Your task to perform on an android device: Clear the cart on ebay. Add razer kraken to the cart on ebay, then select checkout. Image 0: 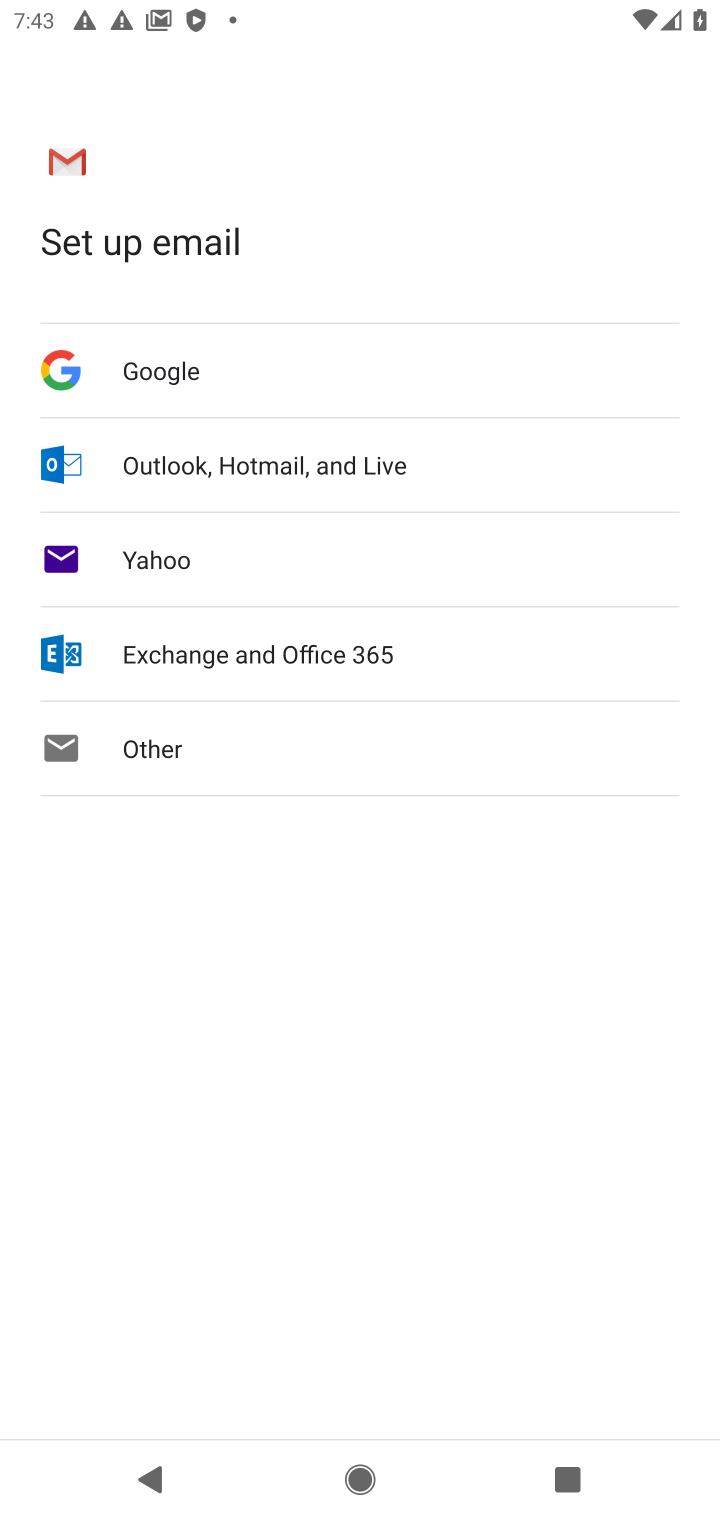
Step 0: press home button
Your task to perform on an android device: Clear the cart on ebay. Add razer kraken to the cart on ebay, then select checkout. Image 1: 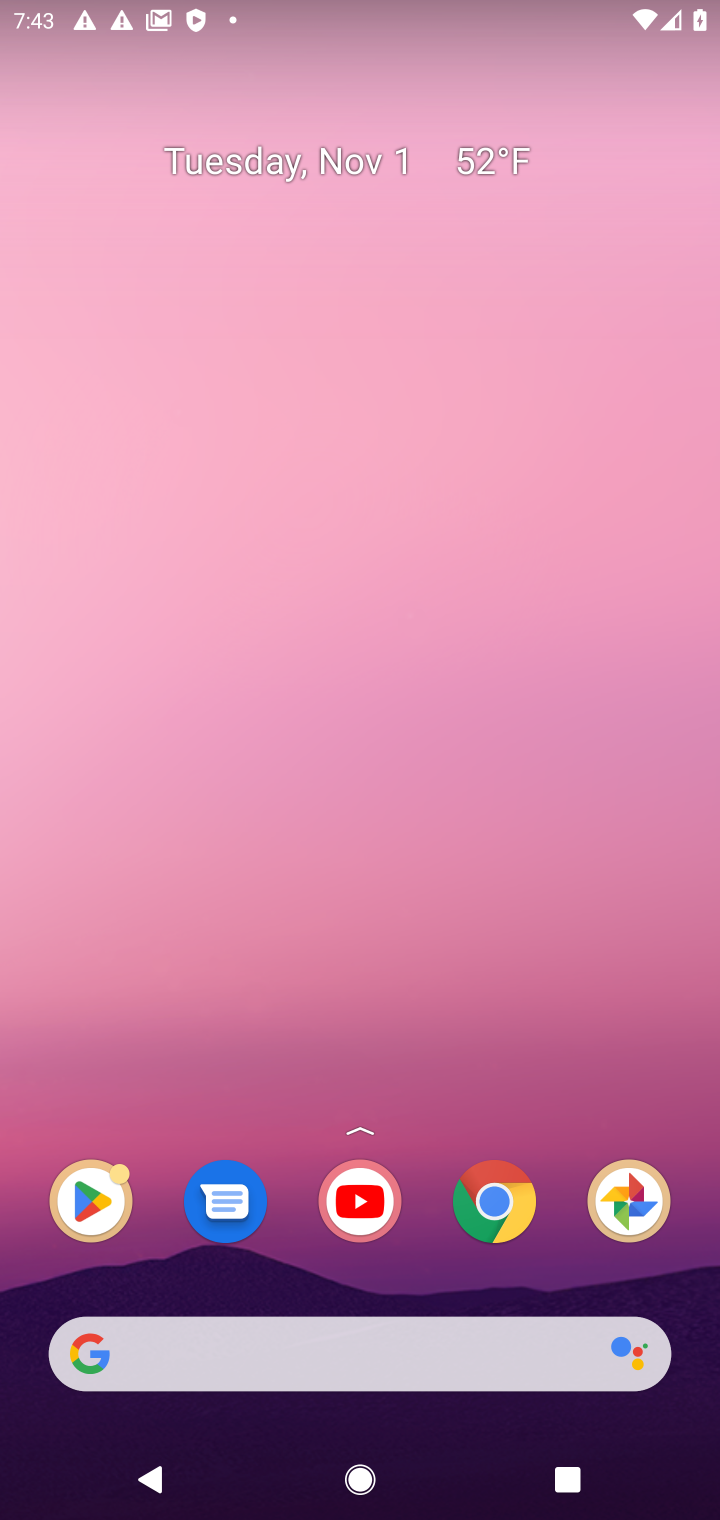
Step 1: click (325, 1347)
Your task to perform on an android device: Clear the cart on ebay. Add razer kraken to the cart on ebay, then select checkout. Image 2: 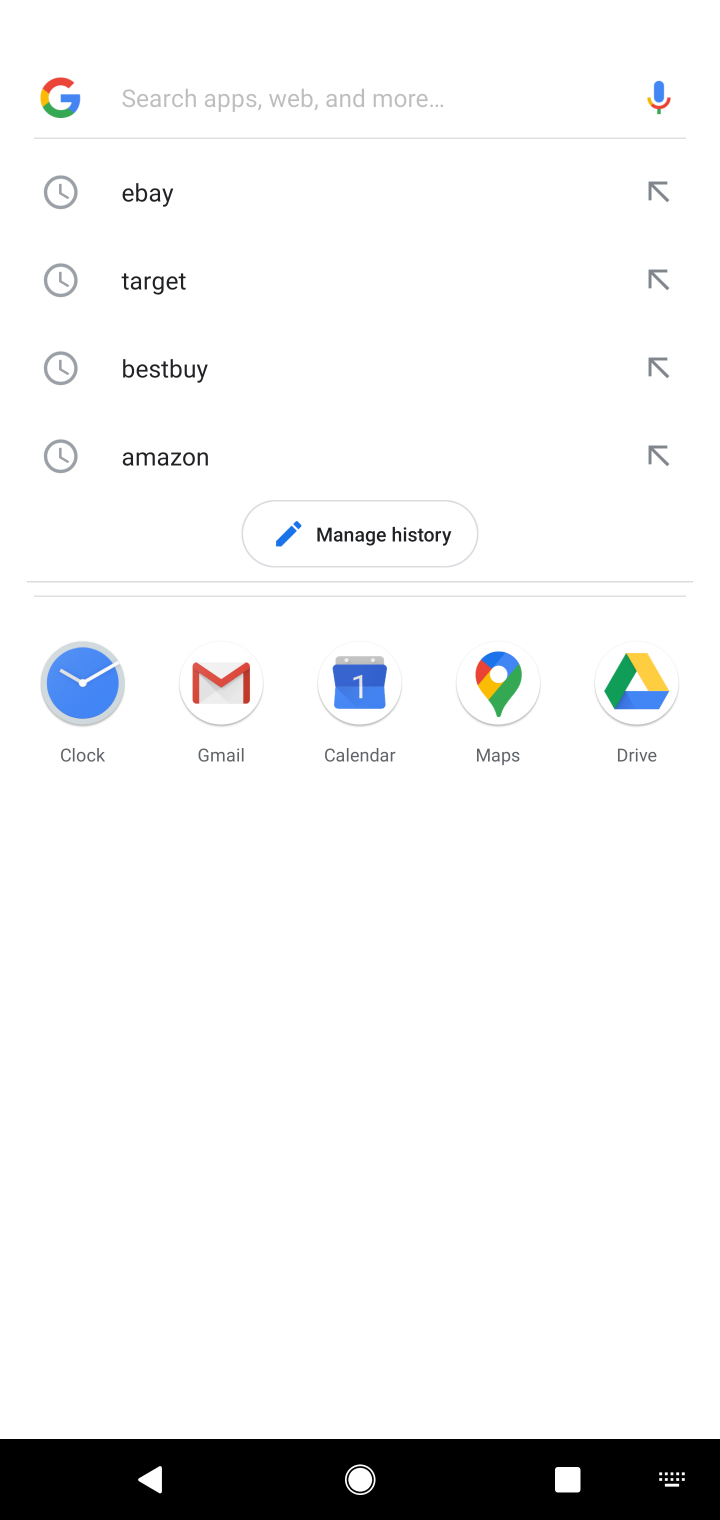
Step 2: type "ebay"
Your task to perform on an android device: Clear the cart on ebay. Add razer kraken to the cart on ebay, then select checkout. Image 3: 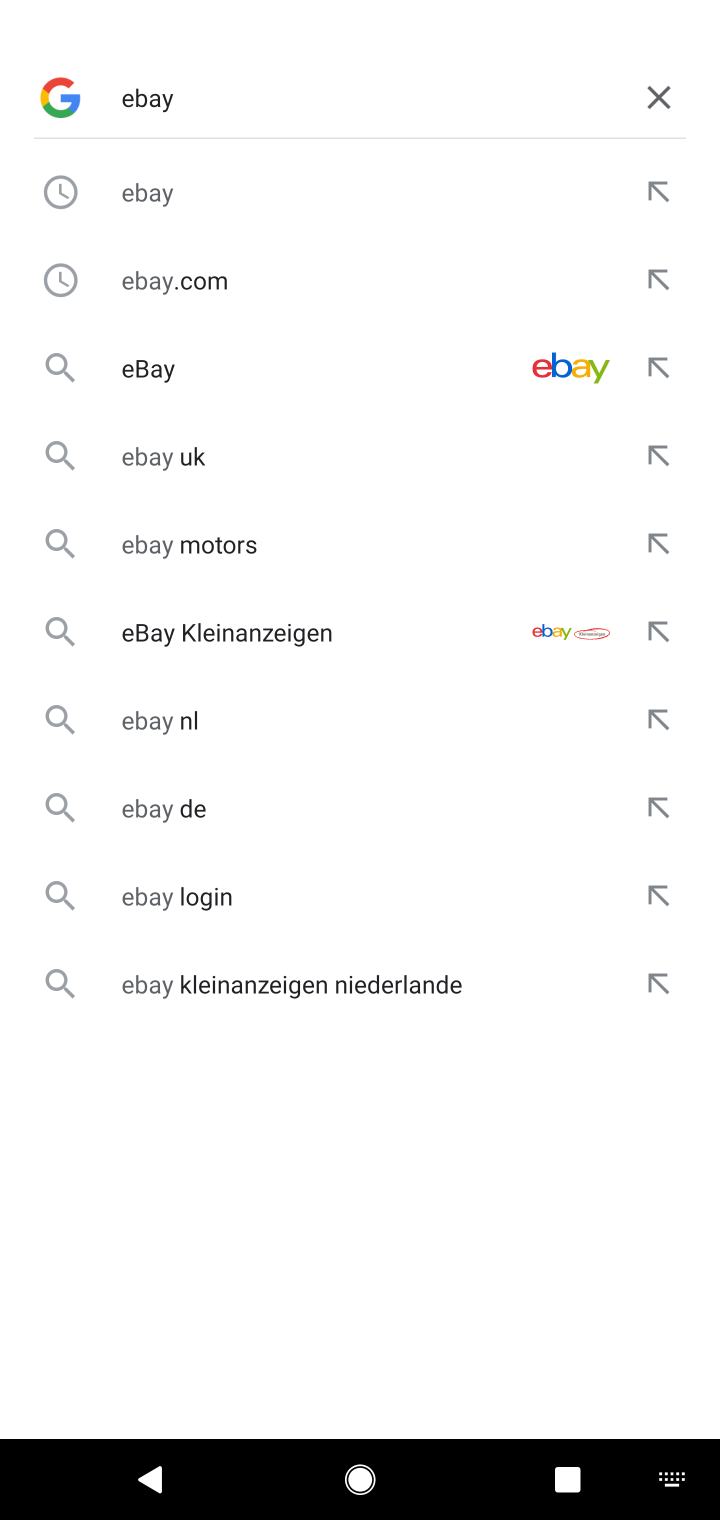
Step 3: type ""
Your task to perform on an android device: Clear the cart on ebay. Add razer kraken to the cart on ebay, then select checkout. Image 4: 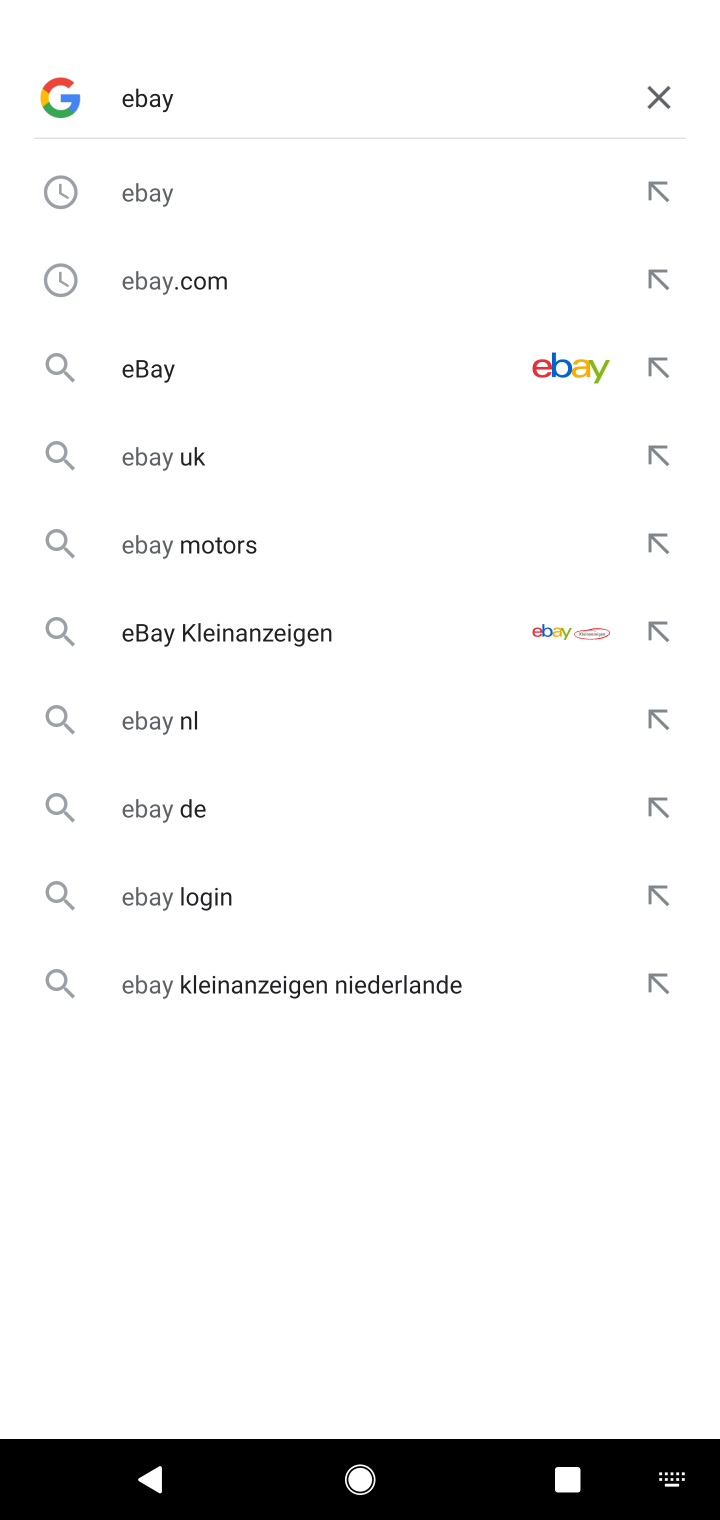
Step 4: press enter
Your task to perform on an android device: Clear the cart on ebay. Add razer kraken to the cart on ebay, then select checkout. Image 5: 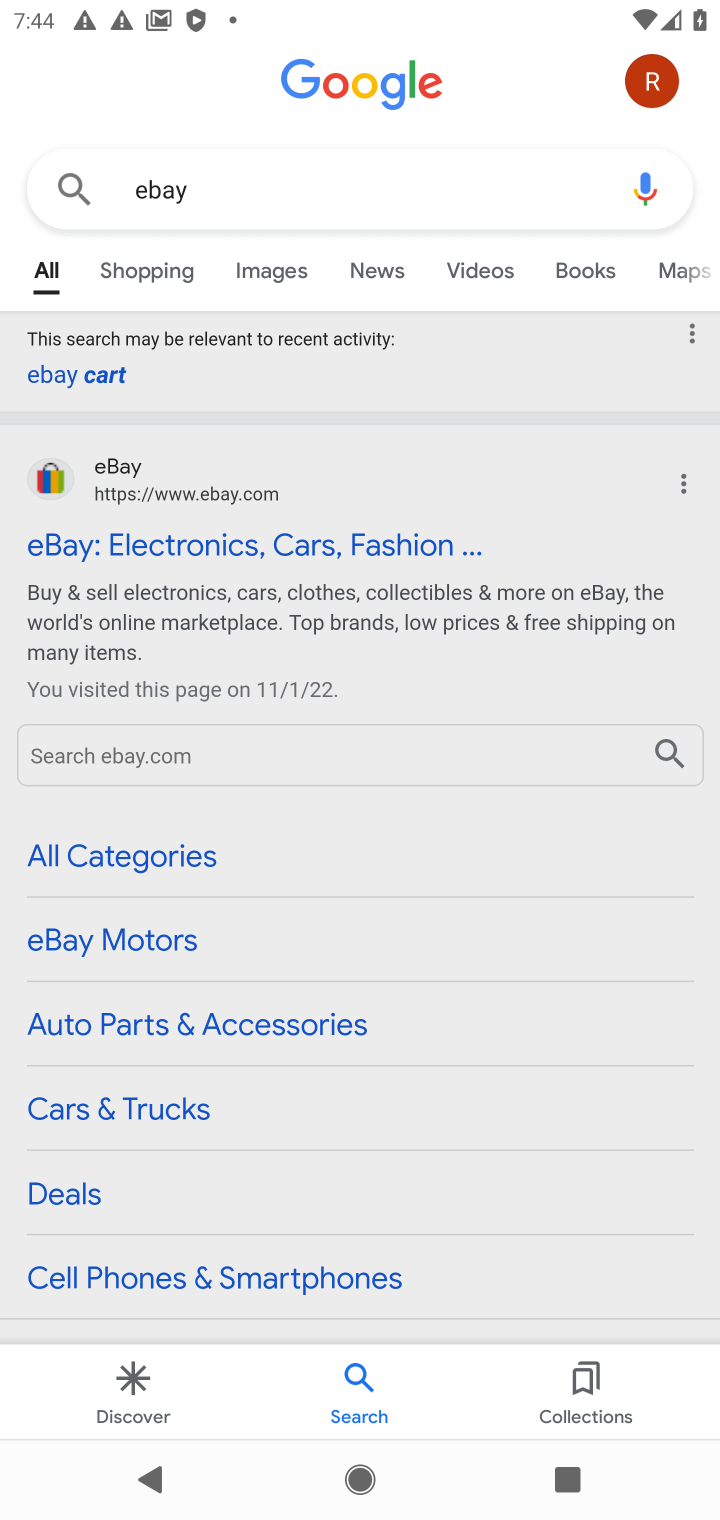
Step 5: click (257, 553)
Your task to perform on an android device: Clear the cart on ebay. Add razer kraken to the cart on ebay, then select checkout. Image 6: 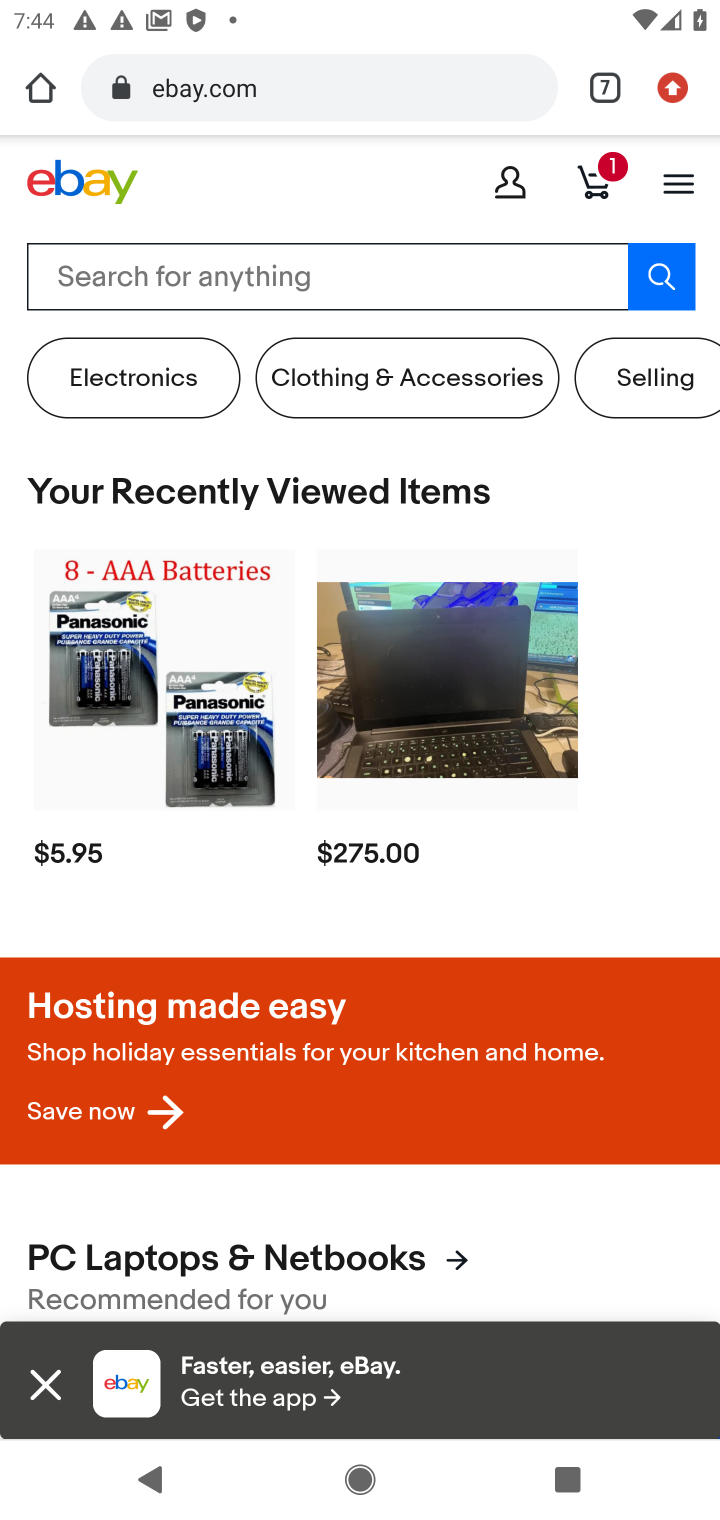
Step 6: click (224, 291)
Your task to perform on an android device: Clear the cart on ebay. Add razer kraken to the cart on ebay, then select checkout. Image 7: 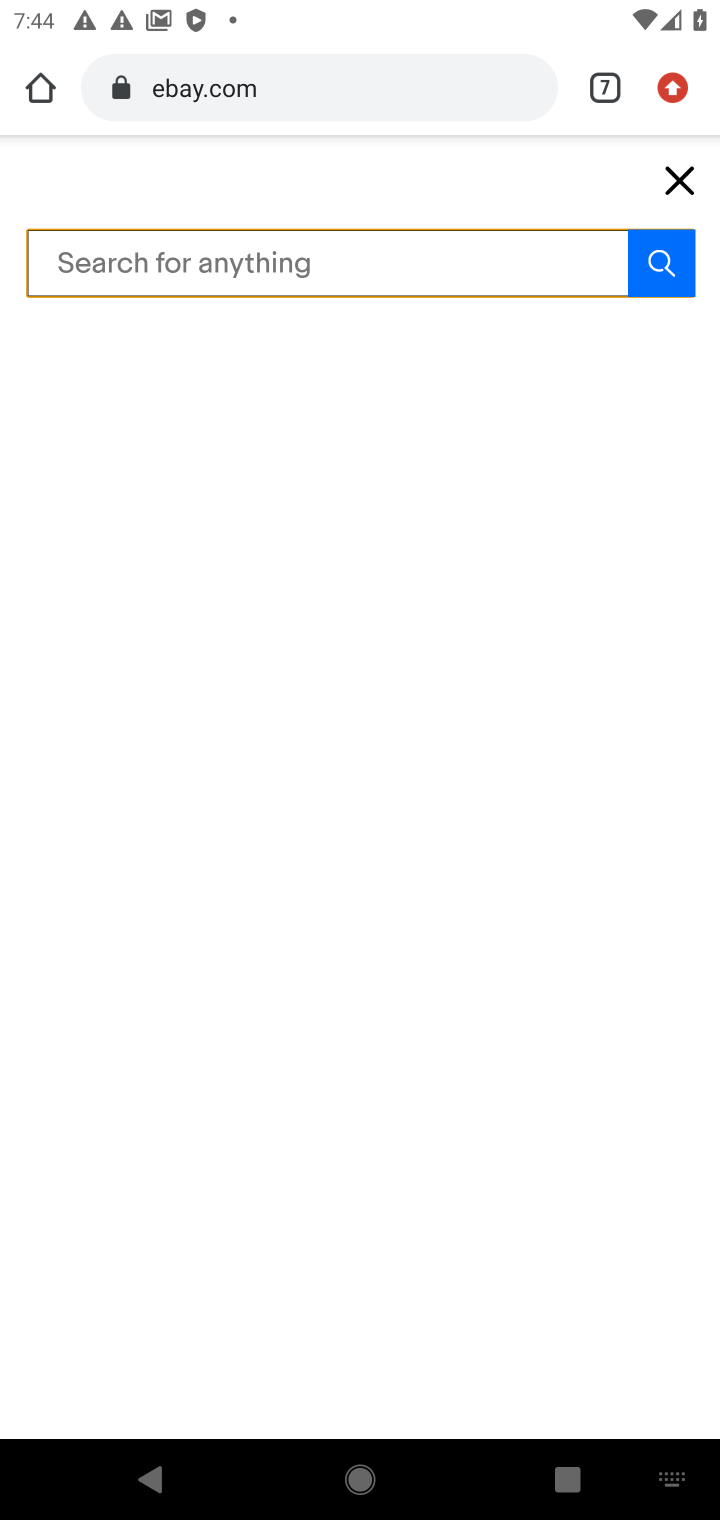
Step 7: click (662, 184)
Your task to perform on an android device: Clear the cart on ebay. Add razer kraken to the cart on ebay, then select checkout. Image 8: 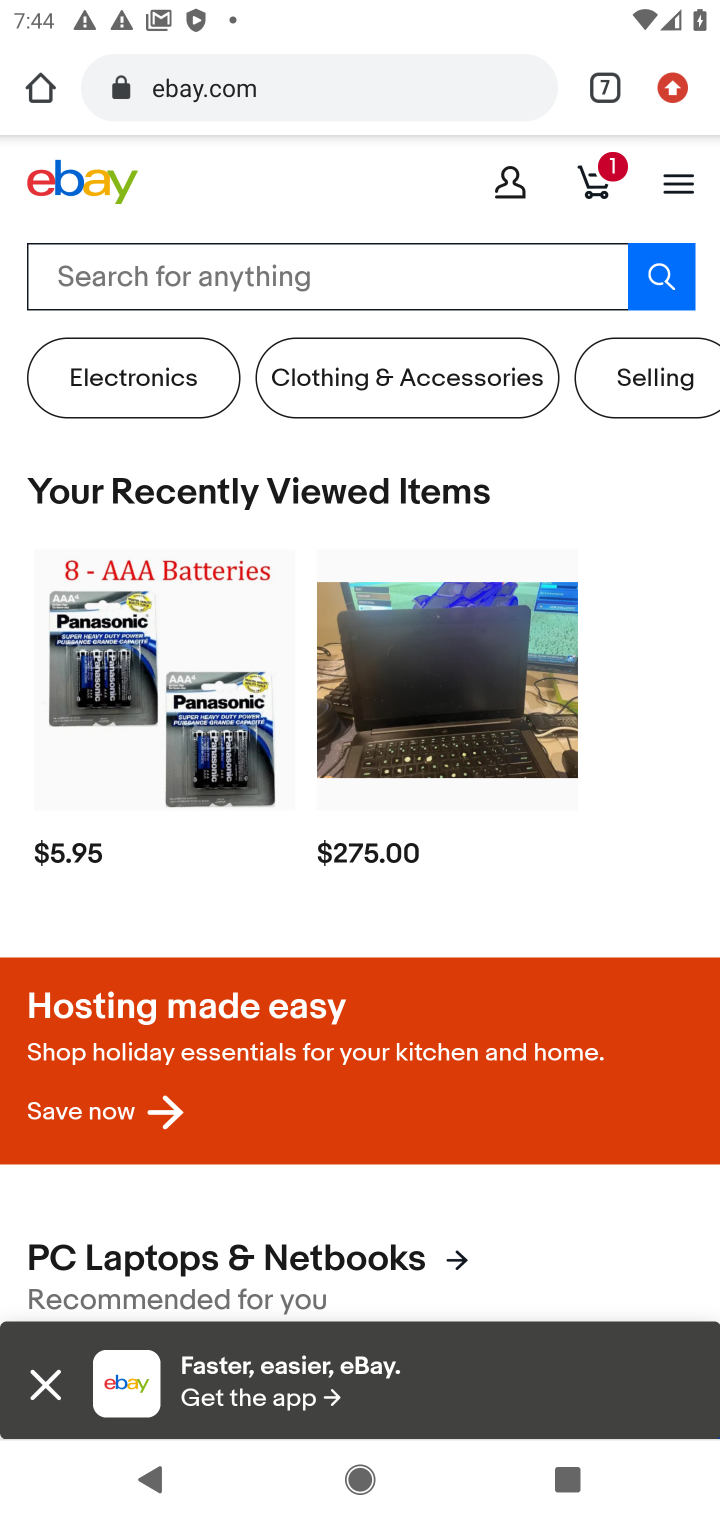
Step 8: click (591, 181)
Your task to perform on an android device: Clear the cart on ebay. Add razer kraken to the cart on ebay, then select checkout. Image 9: 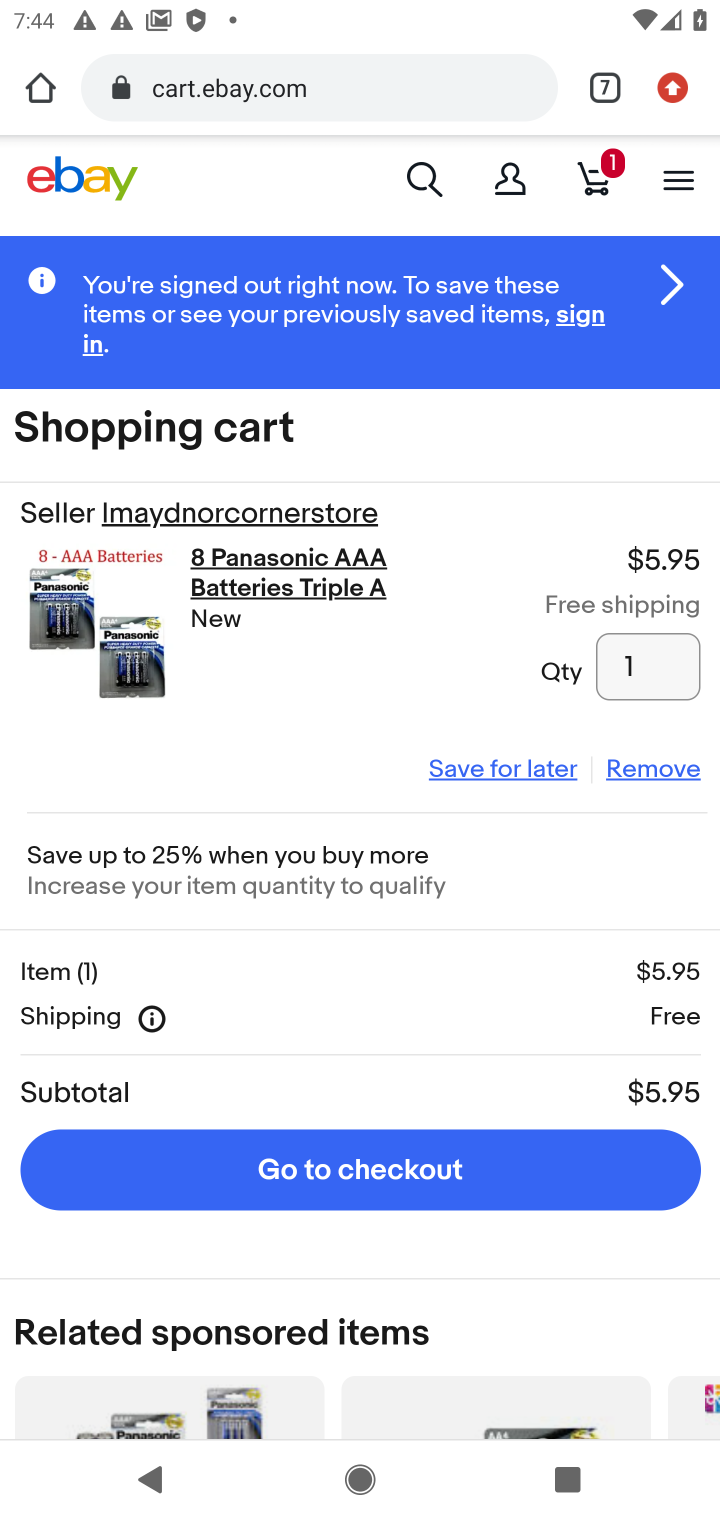
Step 9: click (628, 781)
Your task to perform on an android device: Clear the cart on ebay. Add razer kraken to the cart on ebay, then select checkout. Image 10: 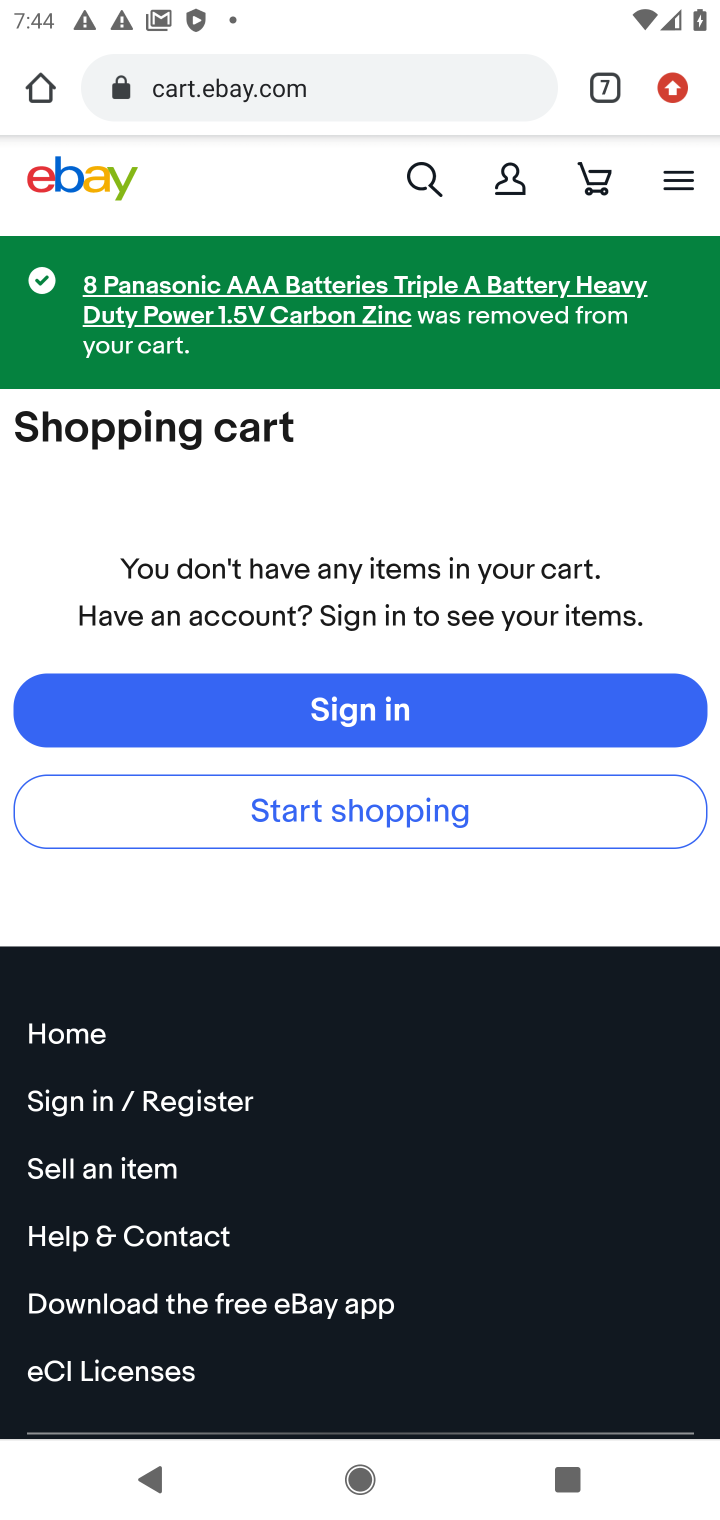
Step 10: click (439, 181)
Your task to perform on an android device: Clear the cart on ebay. Add razer kraken to the cart on ebay, then select checkout. Image 11: 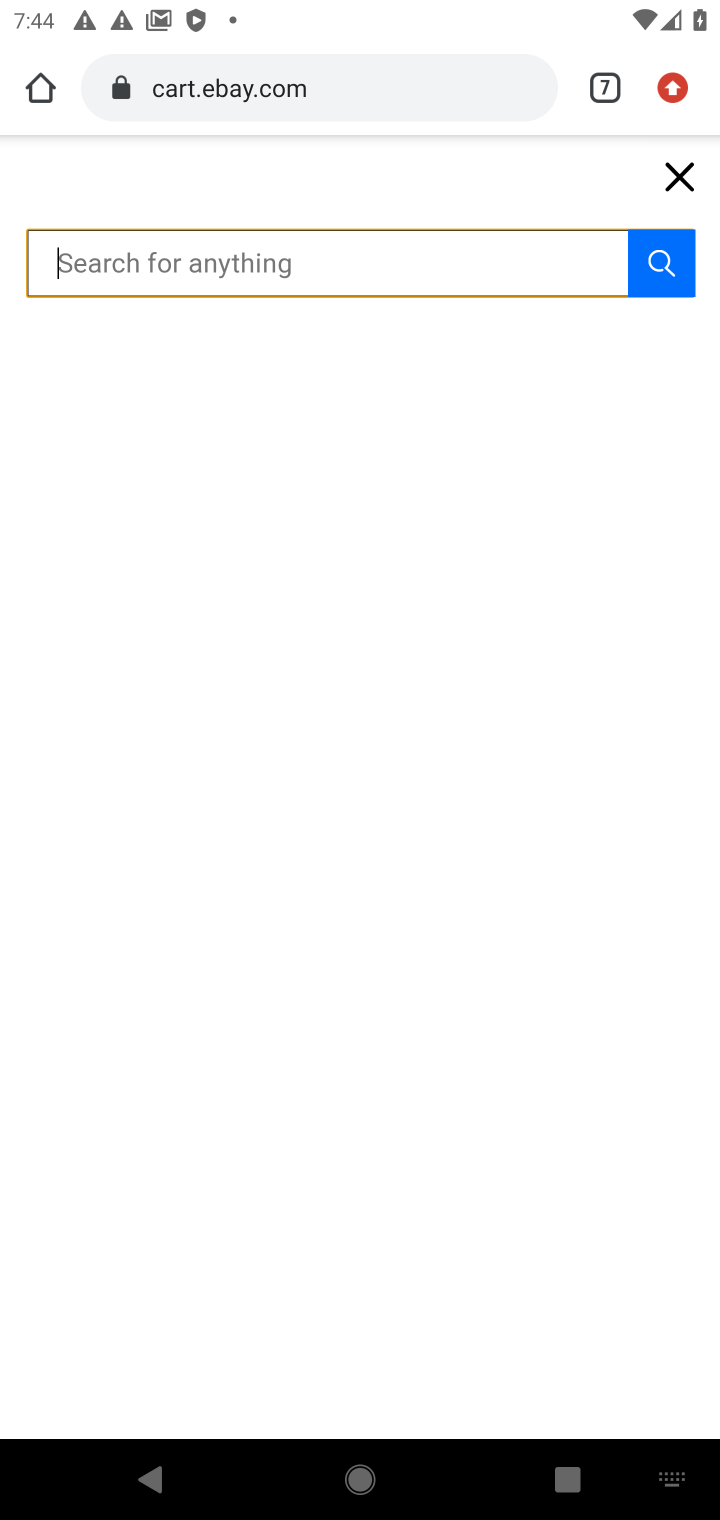
Step 11: type "razer kraken"
Your task to perform on an android device: Clear the cart on ebay. Add razer kraken to the cart on ebay, then select checkout. Image 12: 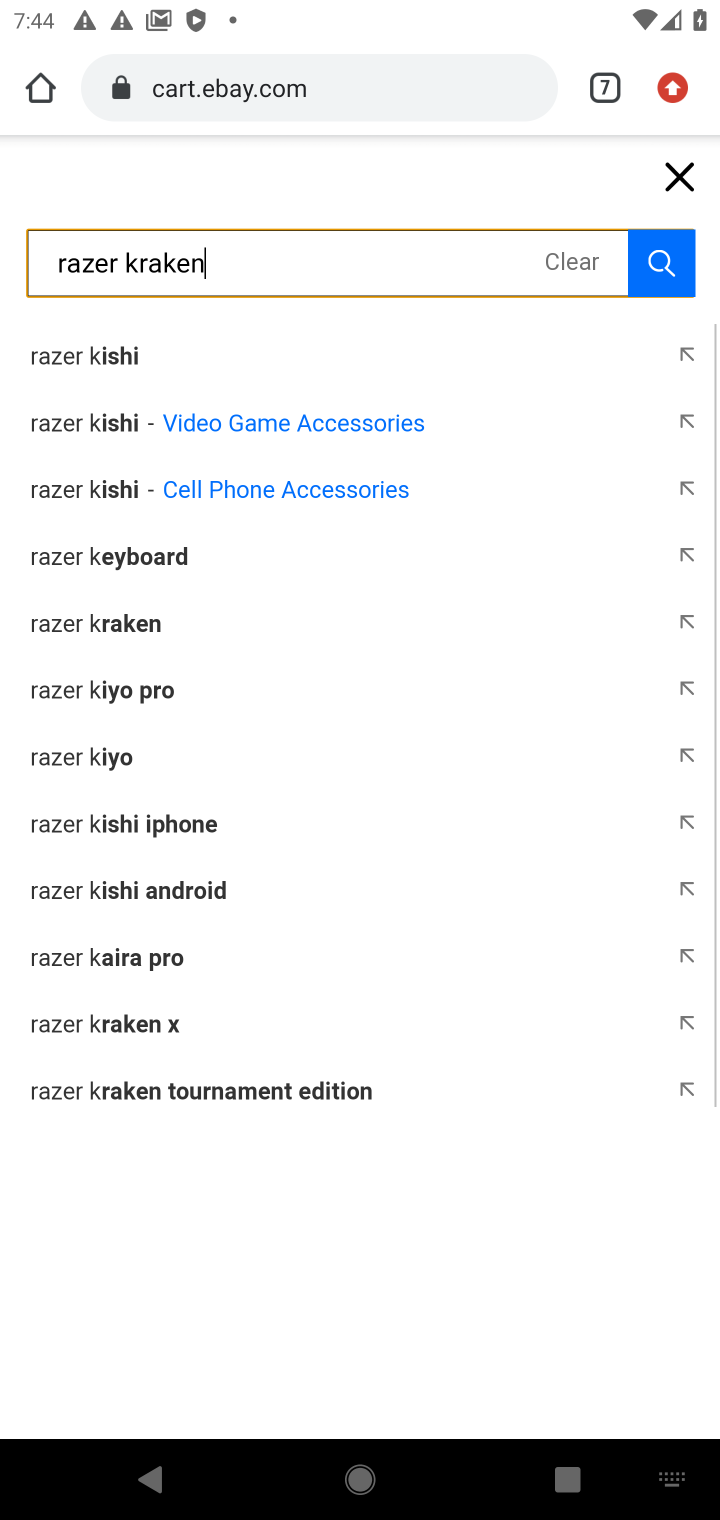
Step 12: type ""
Your task to perform on an android device: Clear the cart on ebay. Add razer kraken to the cart on ebay, then select checkout. Image 13: 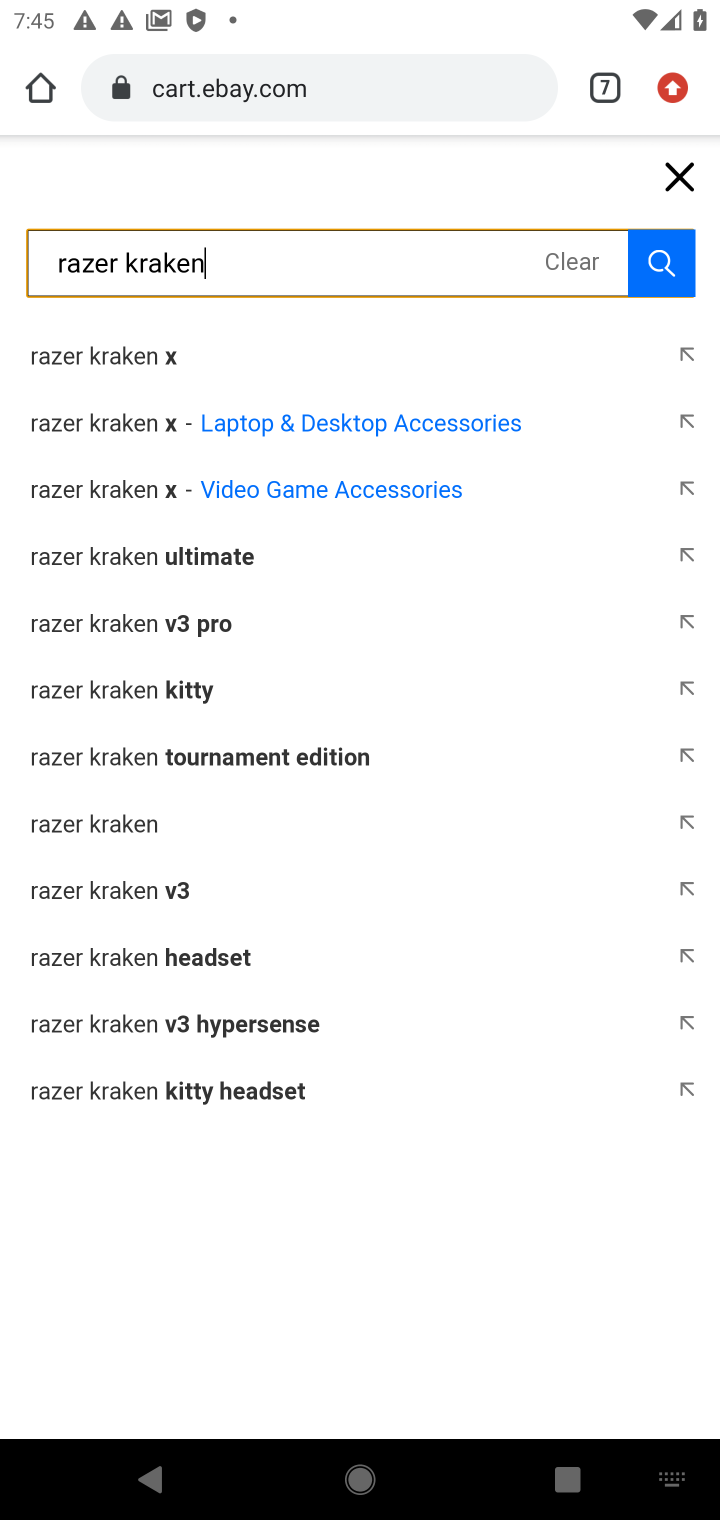
Step 13: click (686, 283)
Your task to perform on an android device: Clear the cart on ebay. Add razer kraken to the cart on ebay, then select checkout. Image 14: 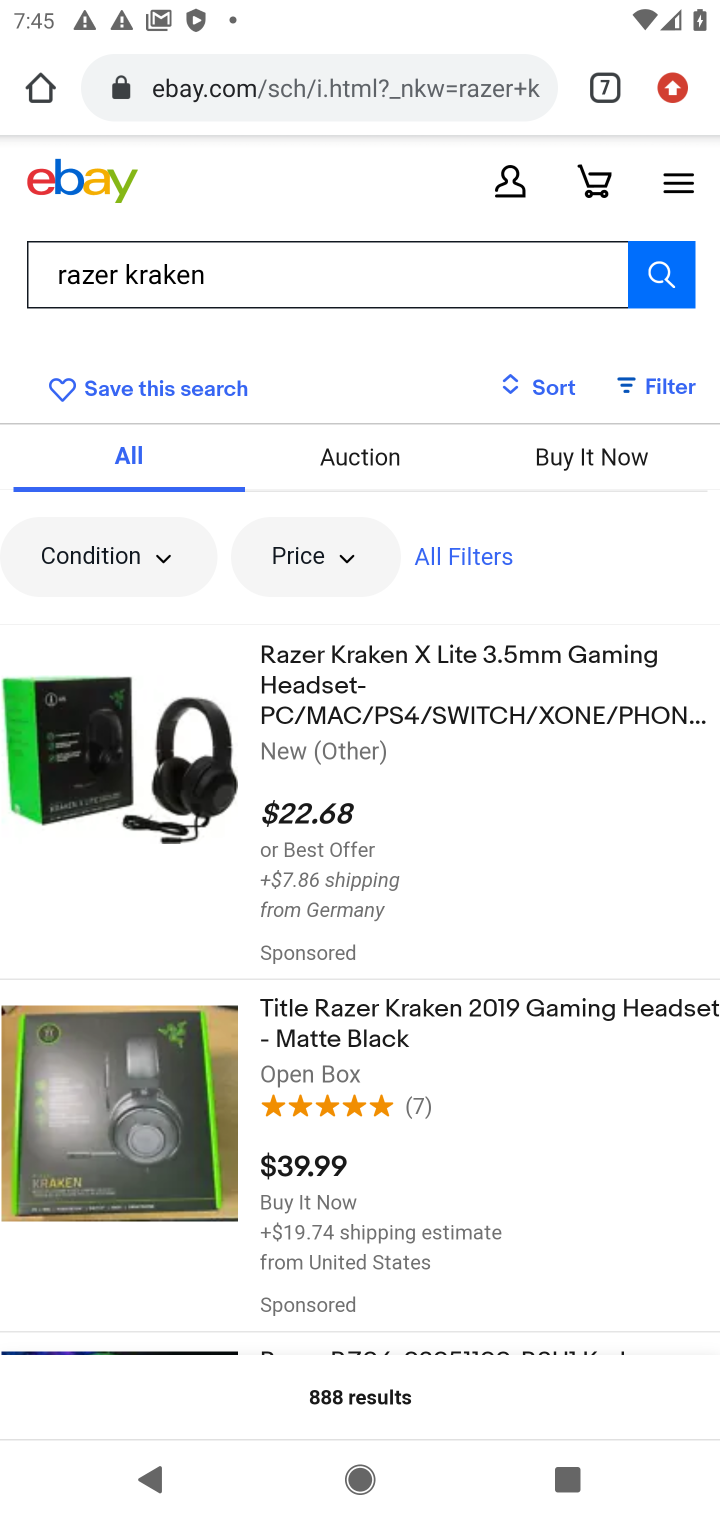
Step 14: click (331, 684)
Your task to perform on an android device: Clear the cart on ebay. Add razer kraken to the cart on ebay, then select checkout. Image 15: 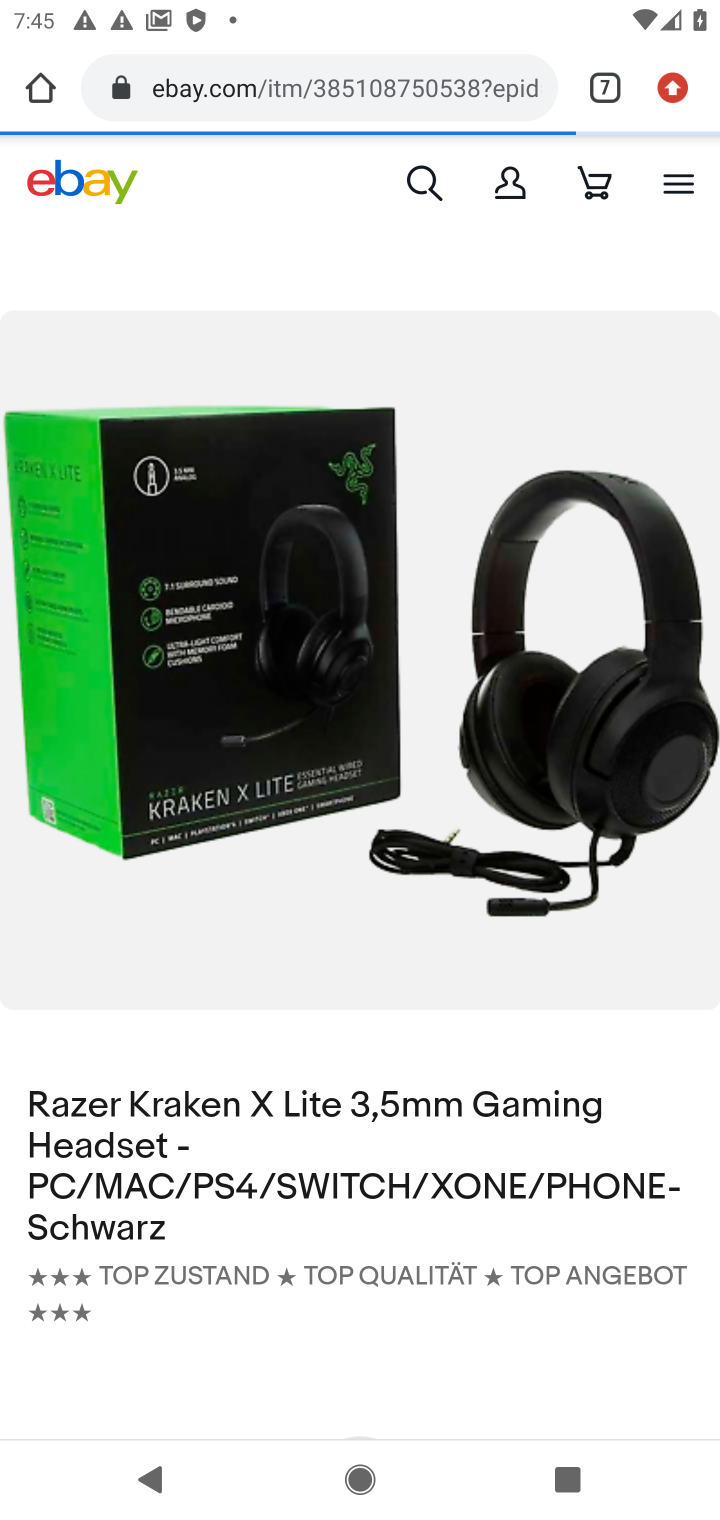
Step 15: drag from (375, 1268) to (280, 418)
Your task to perform on an android device: Clear the cart on ebay. Add razer kraken to the cart on ebay, then select checkout. Image 16: 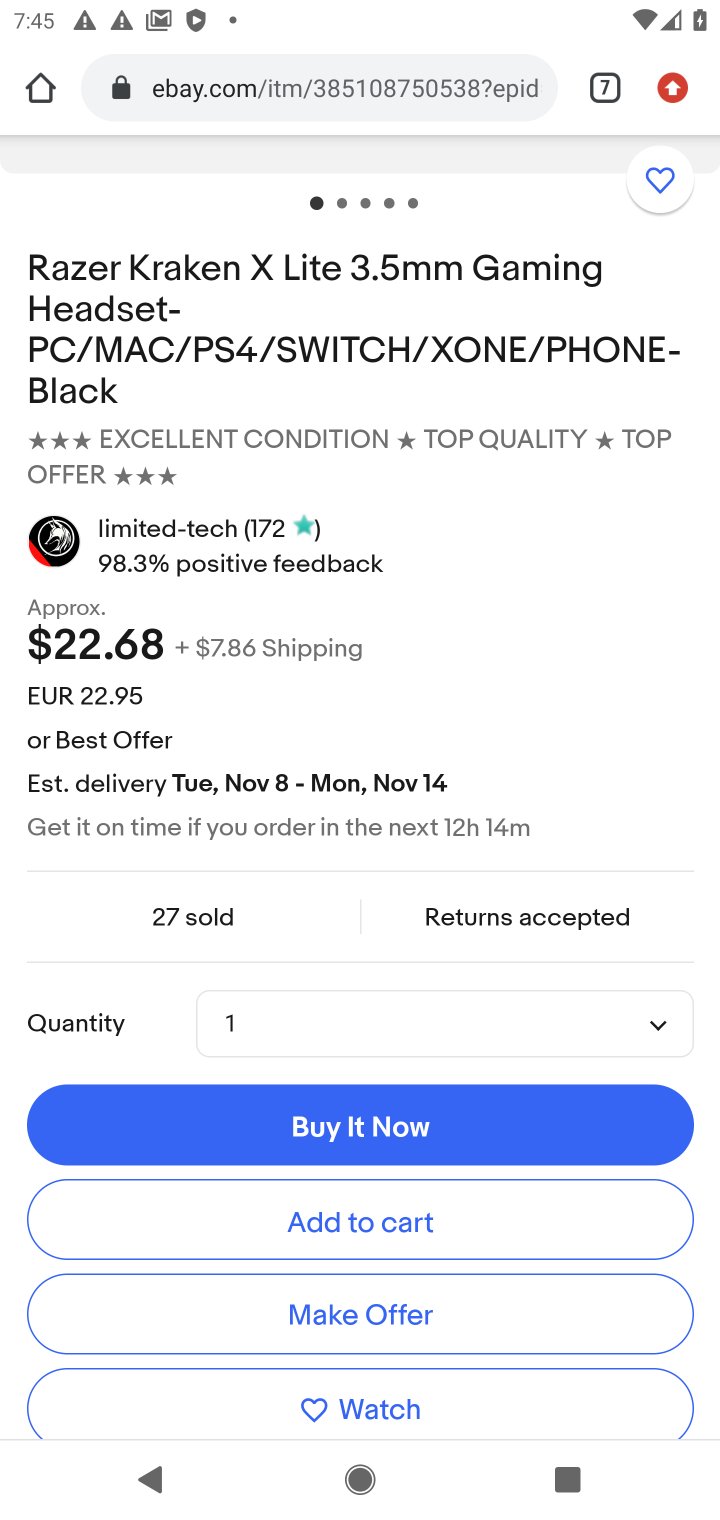
Step 16: click (385, 1207)
Your task to perform on an android device: Clear the cart on ebay. Add razer kraken to the cart on ebay, then select checkout. Image 17: 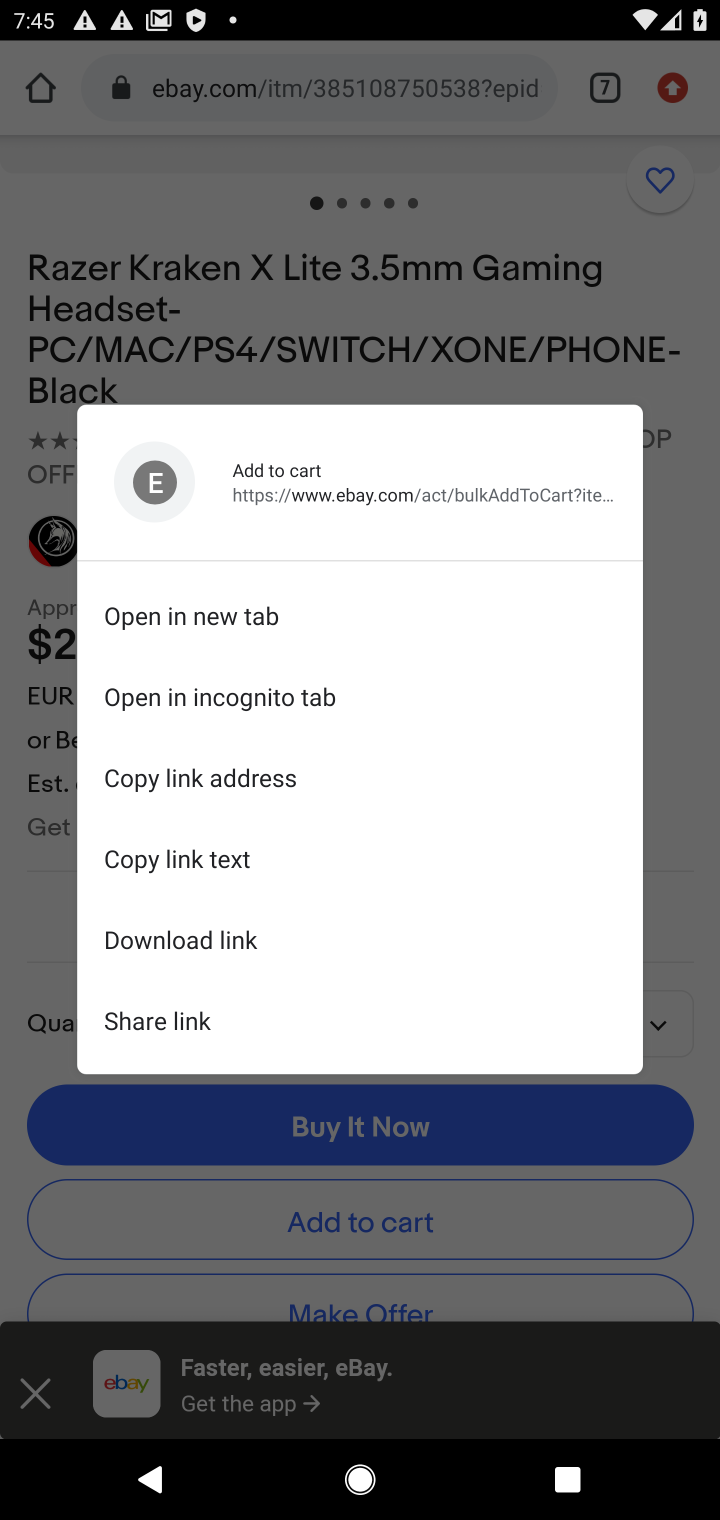
Step 17: click (714, 914)
Your task to perform on an android device: Clear the cart on ebay. Add razer kraken to the cart on ebay, then select checkout. Image 18: 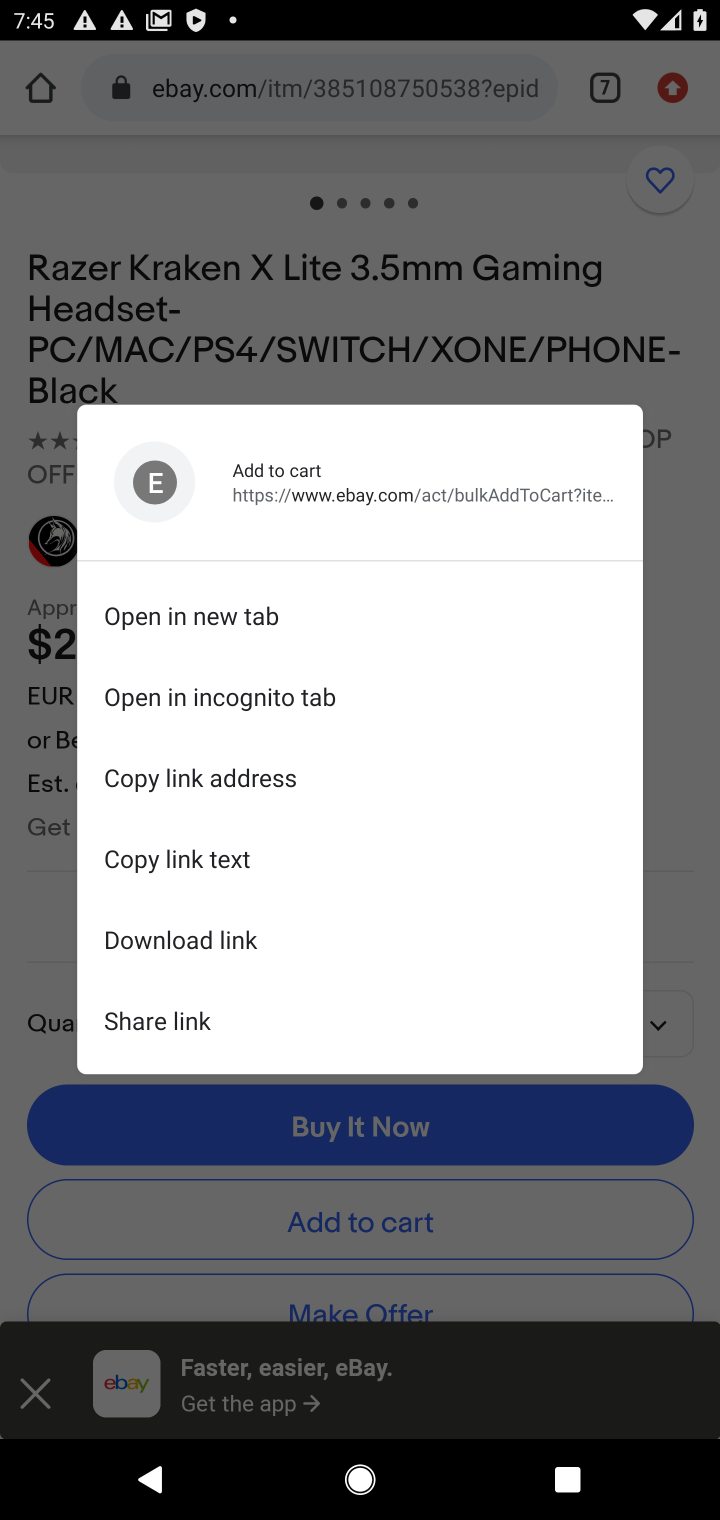
Step 18: click (697, 923)
Your task to perform on an android device: Clear the cart on ebay. Add razer kraken to the cart on ebay, then select checkout. Image 19: 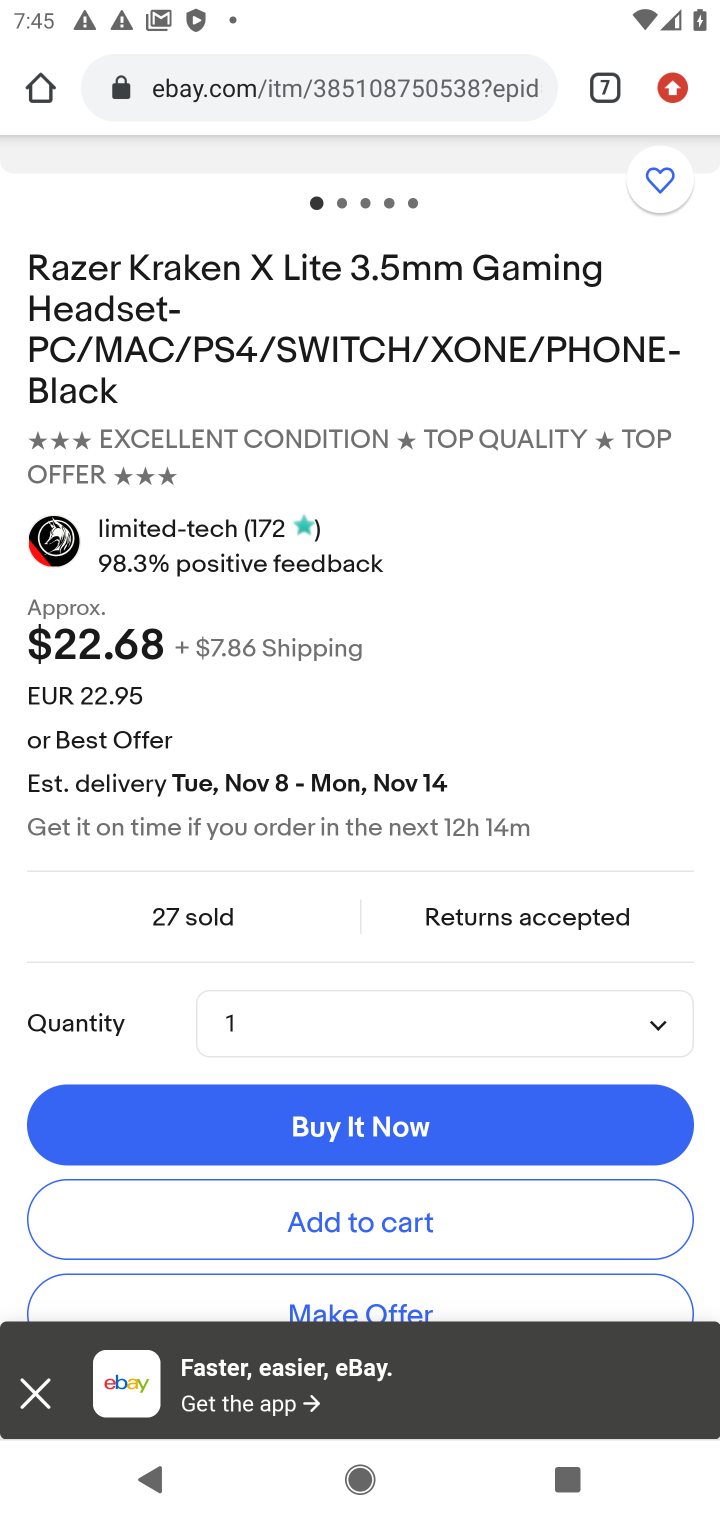
Step 19: click (334, 1230)
Your task to perform on an android device: Clear the cart on ebay. Add razer kraken to the cart on ebay, then select checkout. Image 20: 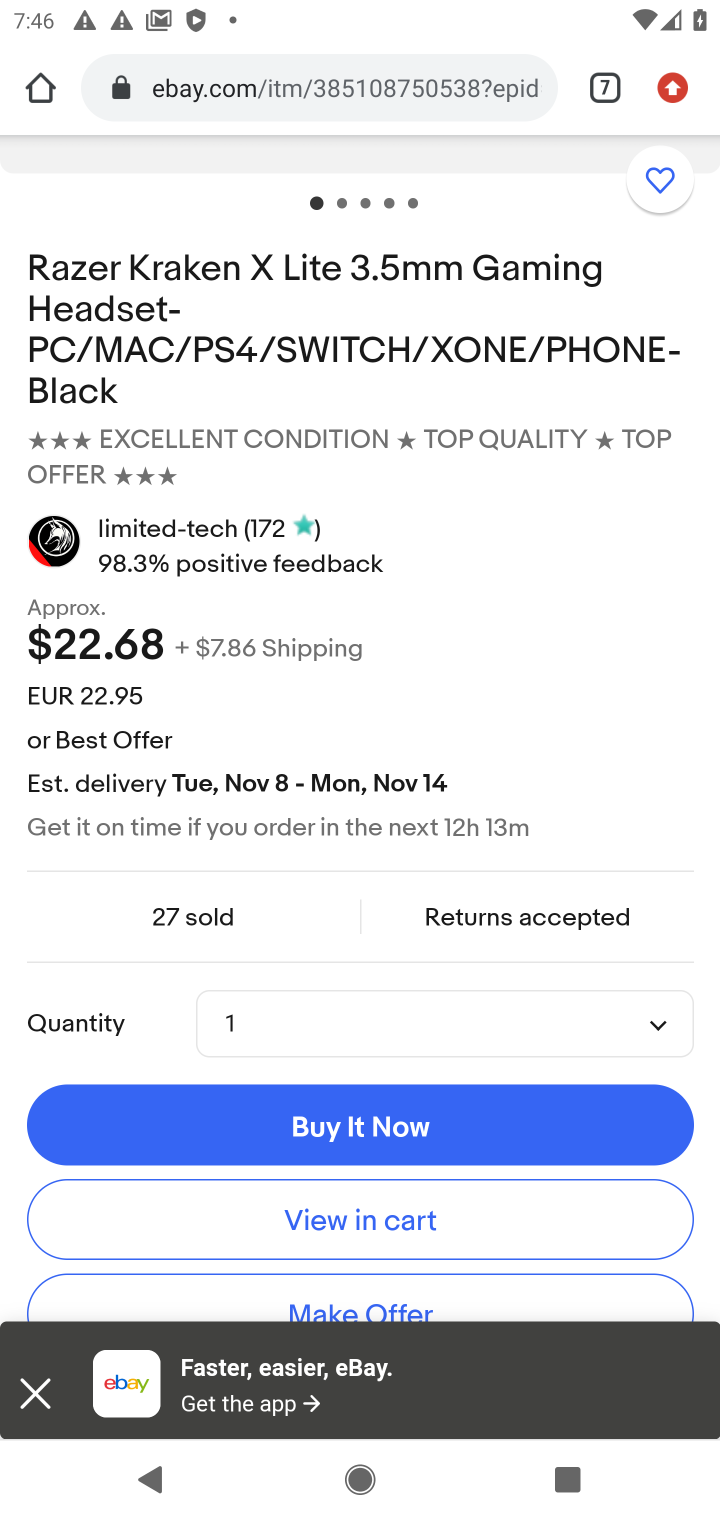
Step 20: click (512, 1221)
Your task to perform on an android device: Clear the cart on ebay. Add razer kraken to the cart on ebay, then select checkout. Image 21: 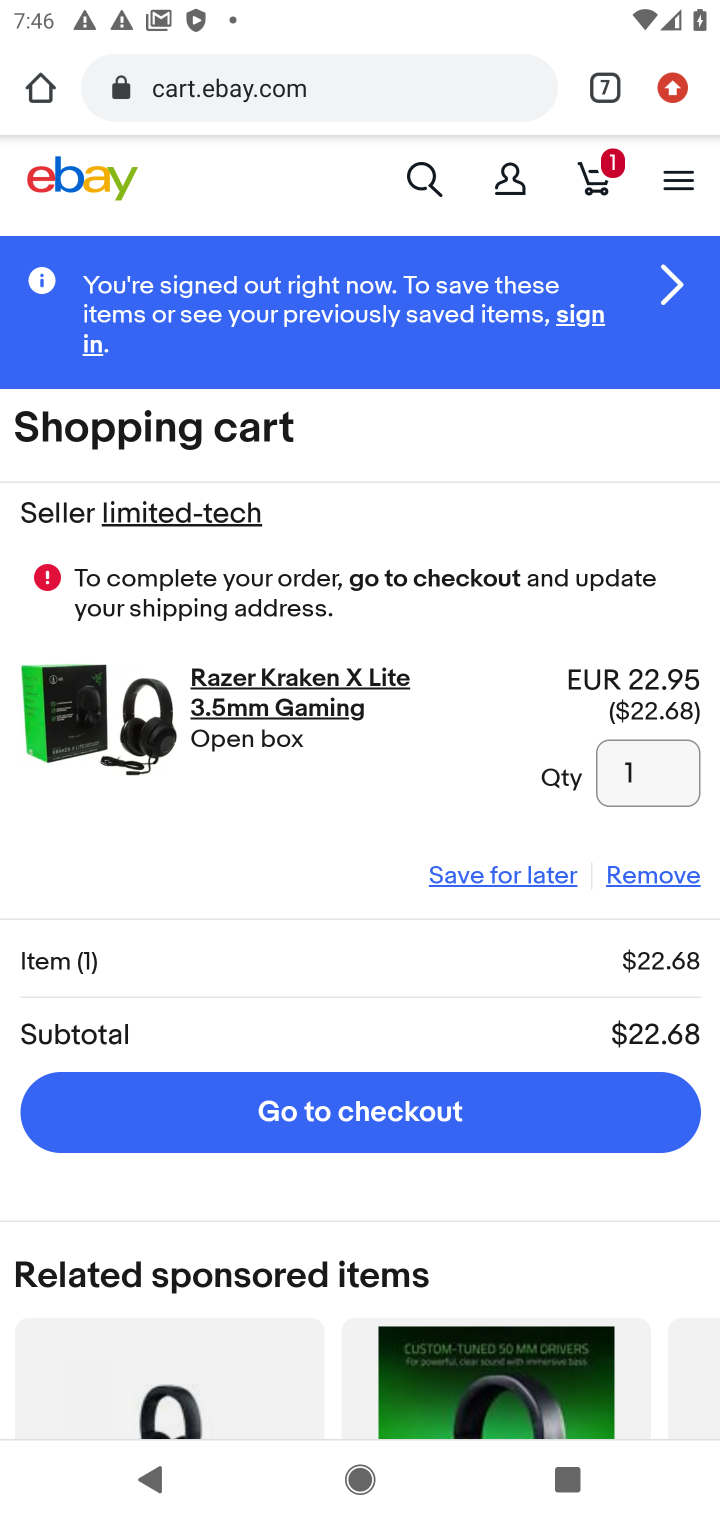
Step 21: click (503, 1138)
Your task to perform on an android device: Clear the cart on ebay. Add razer kraken to the cart on ebay, then select checkout. Image 22: 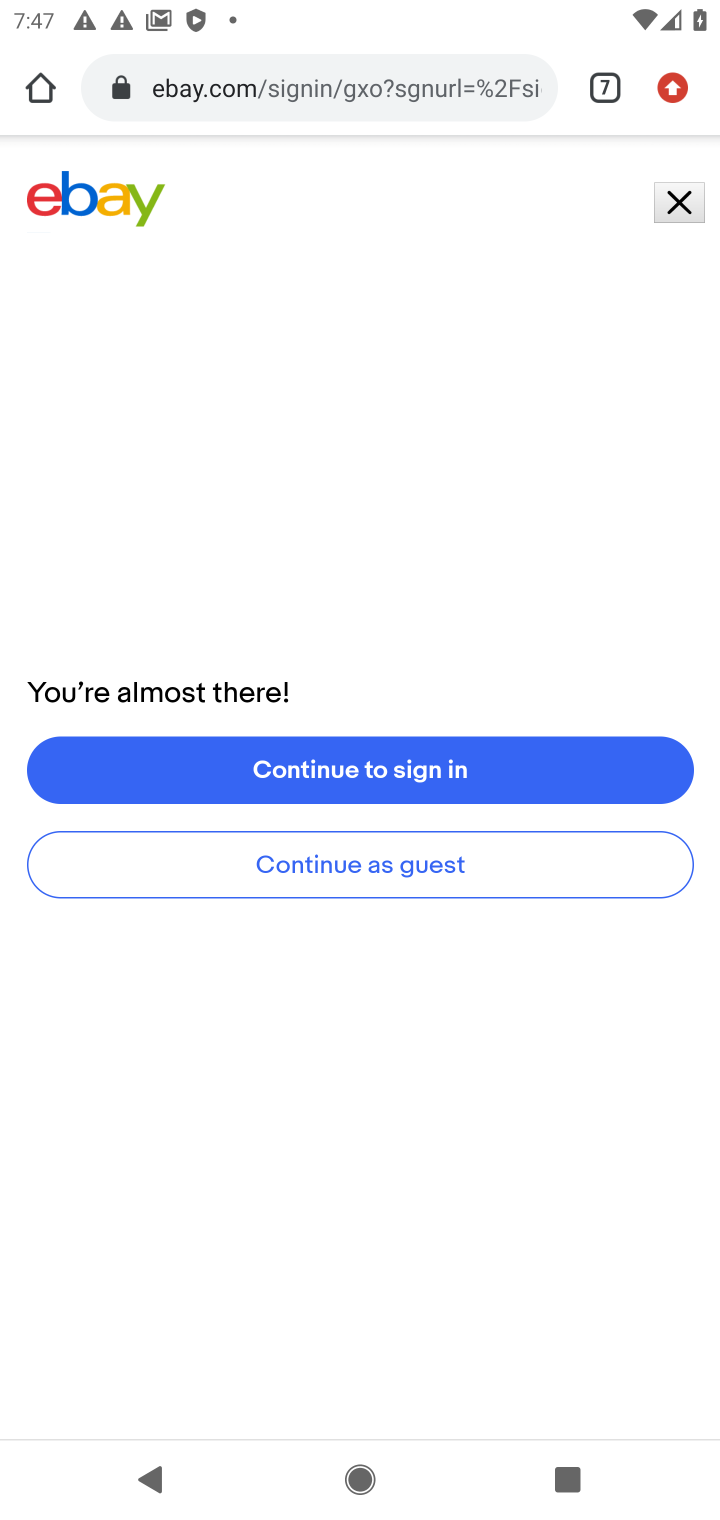
Step 22: task complete